Your task to perform on an android device: Toggle the flashlight Image 0: 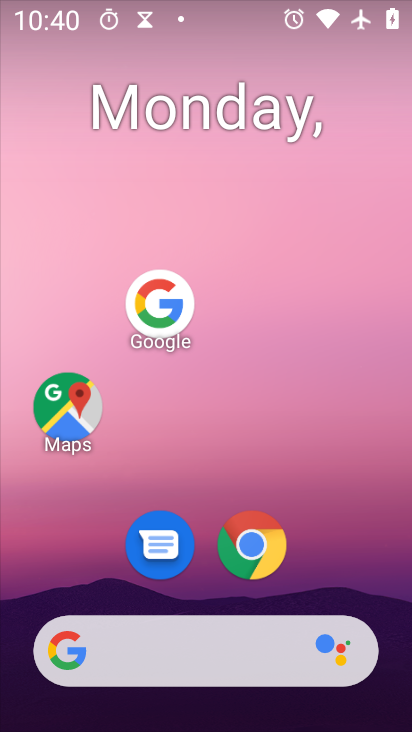
Step 0: drag from (239, 7) to (249, 496)
Your task to perform on an android device: Toggle the flashlight Image 1: 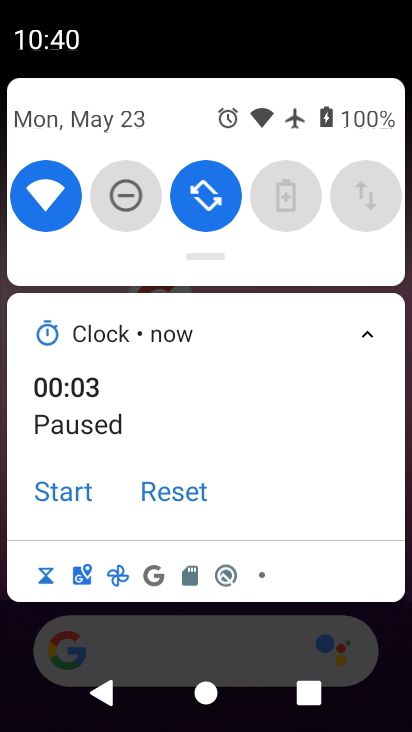
Step 1: task complete